Your task to perform on an android device: Search for the best custom wallets on Etsy. Image 0: 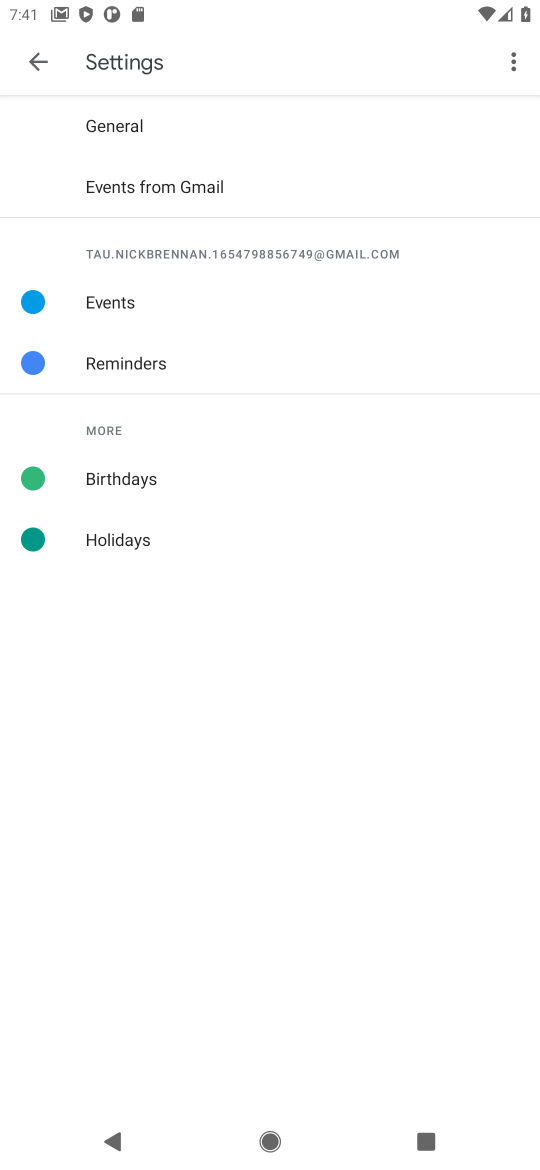
Step 0: press home button
Your task to perform on an android device: Search for the best custom wallets on Etsy. Image 1: 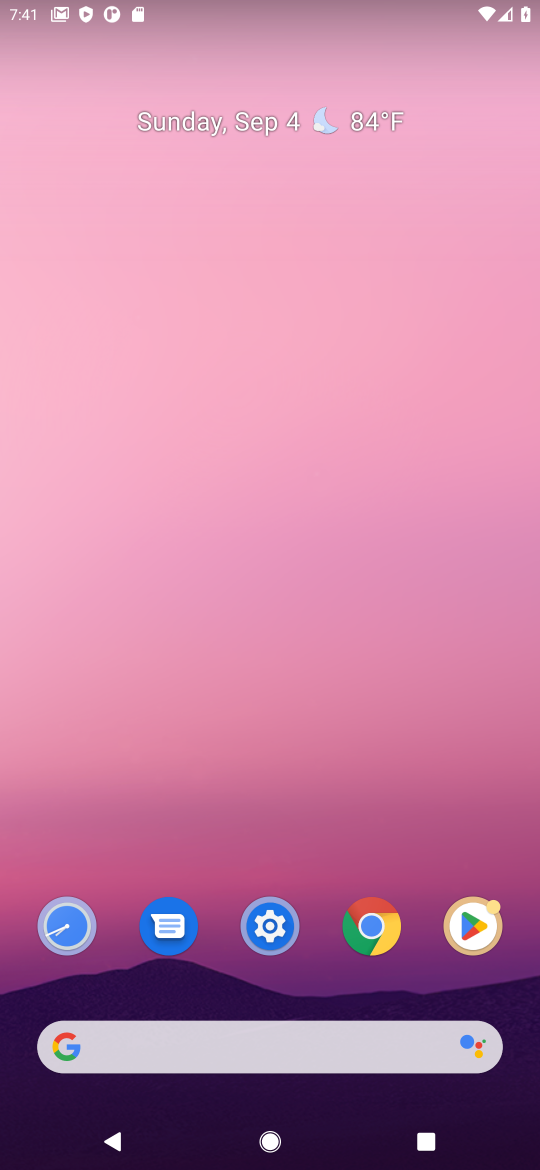
Step 1: click (206, 1060)
Your task to perform on an android device: Search for the best custom wallets on Etsy. Image 2: 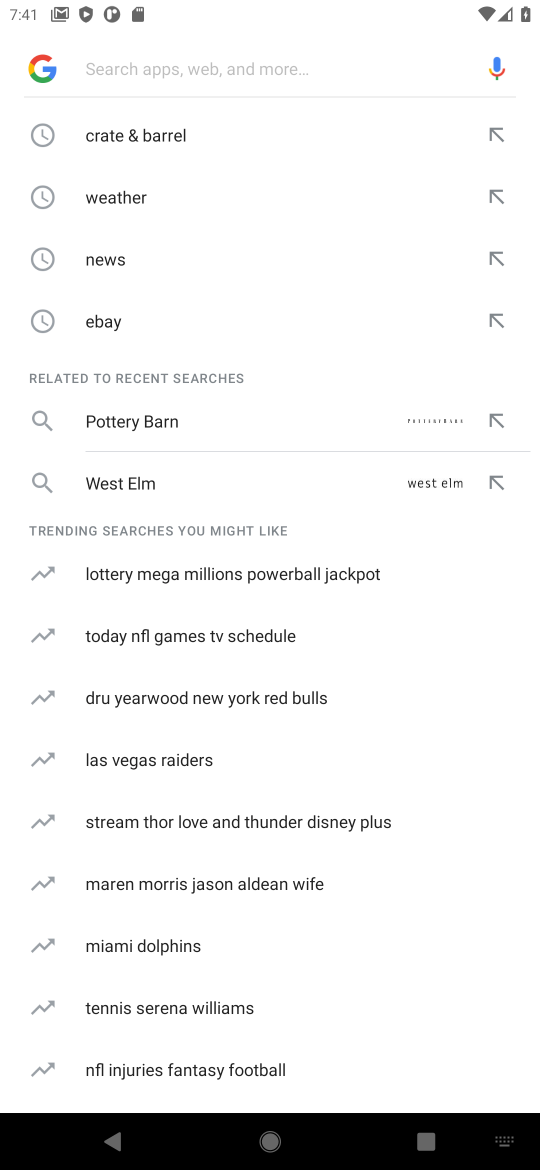
Step 2: type "etsy"
Your task to perform on an android device: Search for the best custom wallets on Etsy. Image 3: 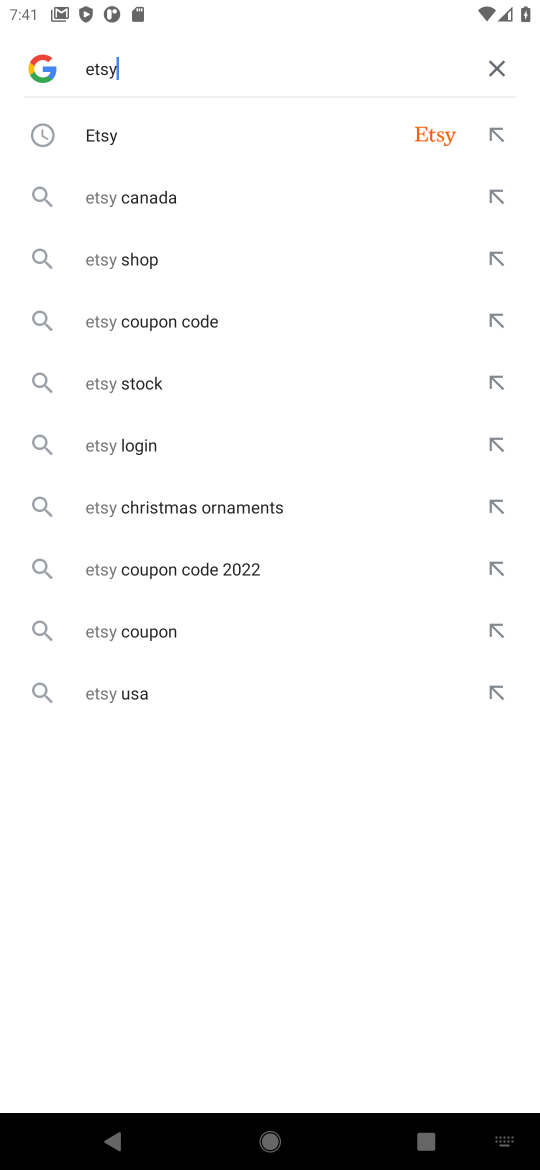
Step 3: click (121, 127)
Your task to perform on an android device: Search for the best custom wallets on Etsy. Image 4: 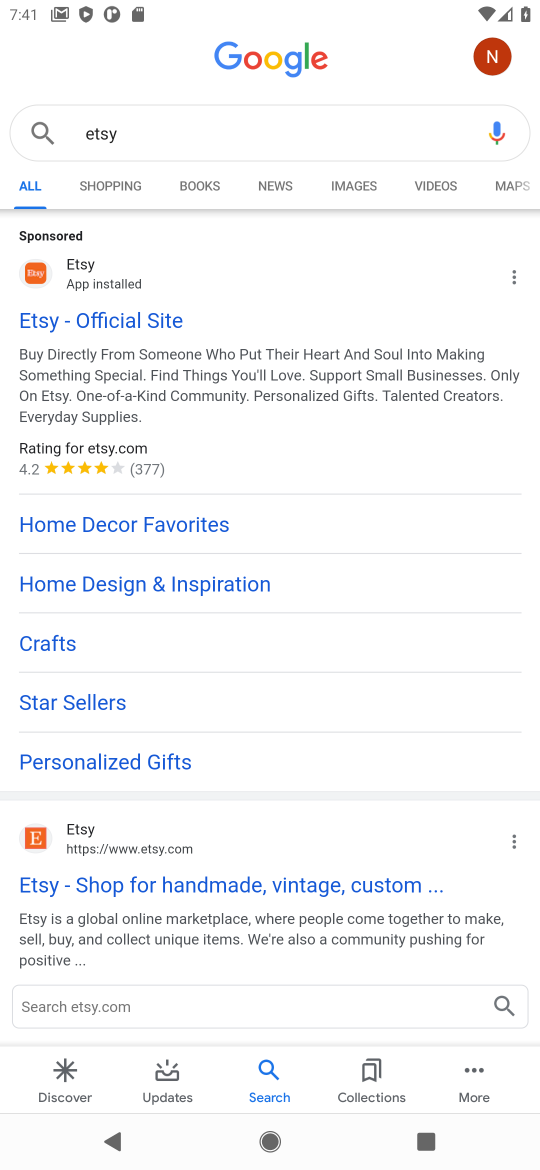
Step 4: click (115, 318)
Your task to perform on an android device: Search for the best custom wallets on Etsy. Image 5: 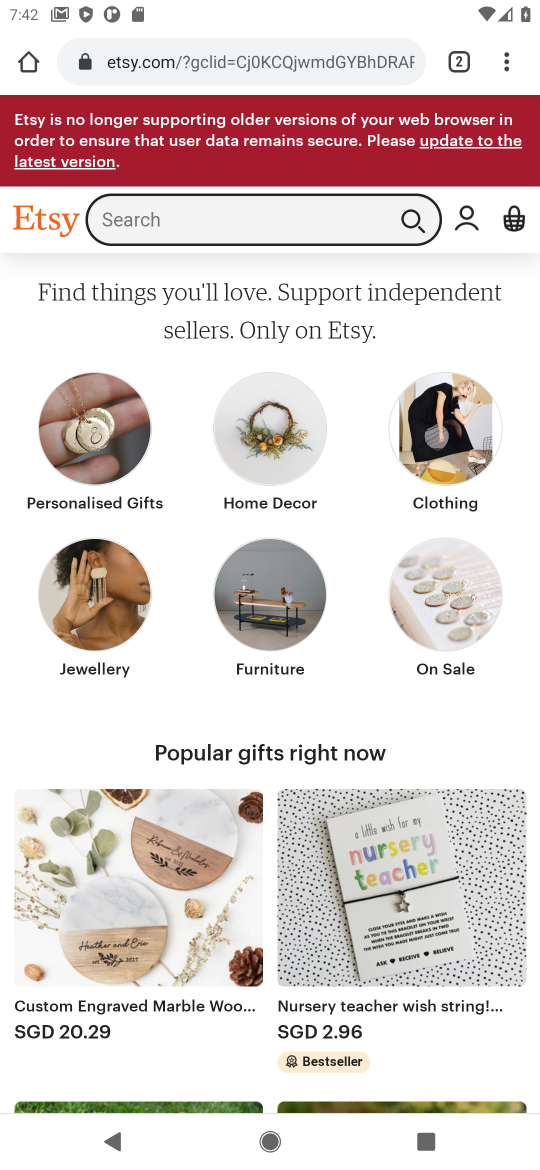
Step 5: click (184, 219)
Your task to perform on an android device: Search for the best custom wallets on Etsy. Image 6: 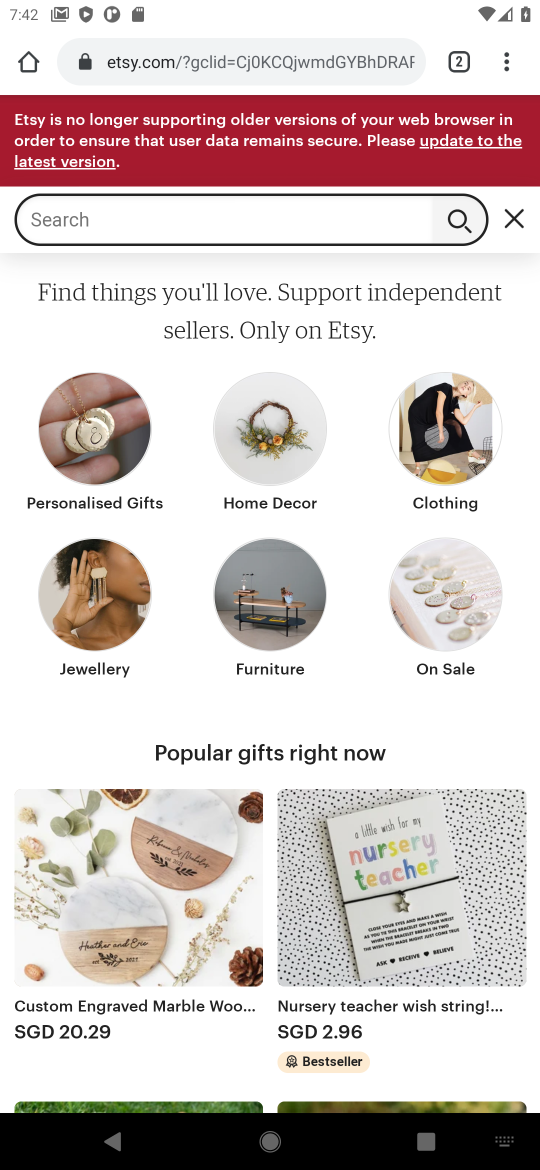
Step 6: type "custom wallets"
Your task to perform on an android device: Search for the best custom wallets on Etsy. Image 7: 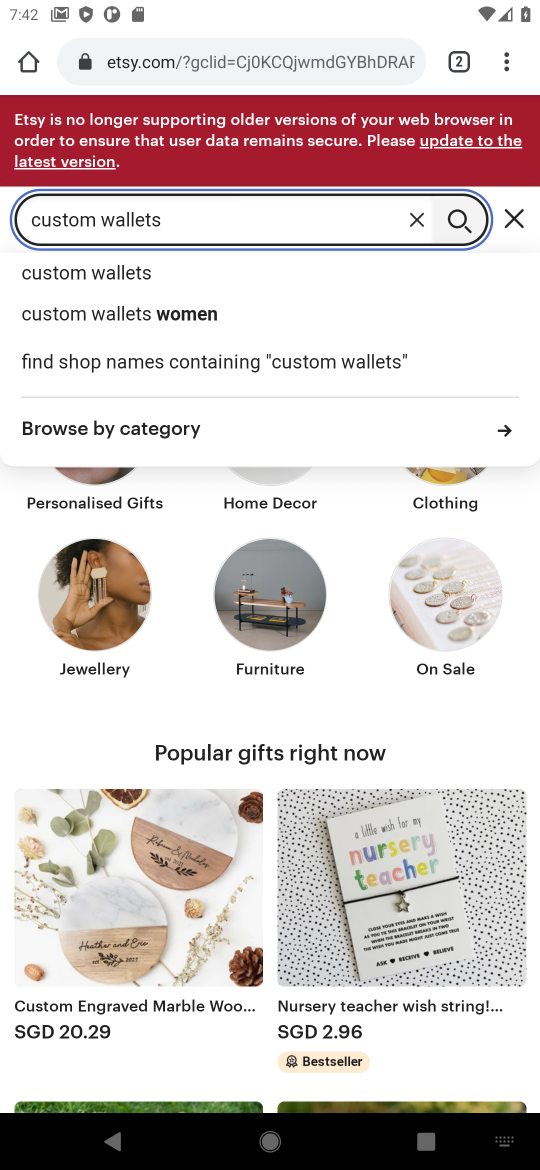
Step 7: click (136, 265)
Your task to perform on an android device: Search for the best custom wallets on Etsy. Image 8: 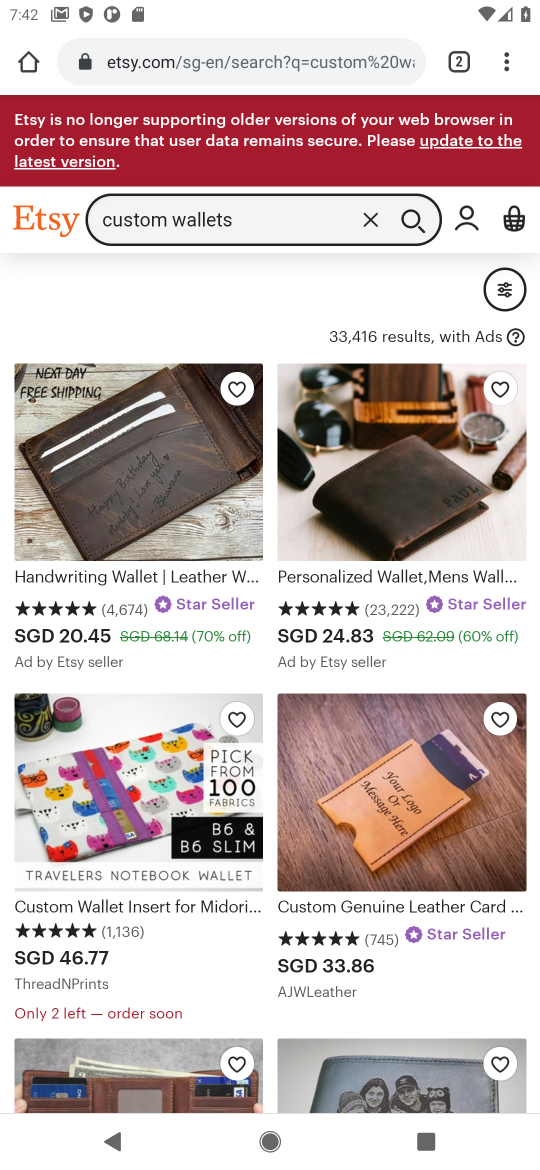
Step 8: task complete